Your task to perform on an android device: turn off location Image 0: 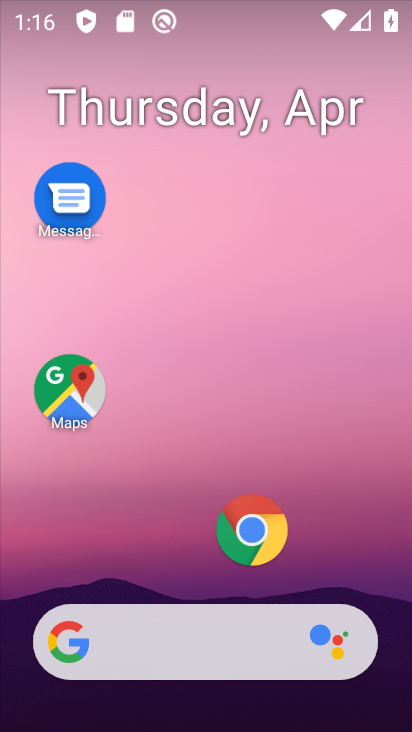
Step 0: drag from (219, 591) to (195, 9)
Your task to perform on an android device: turn off location Image 1: 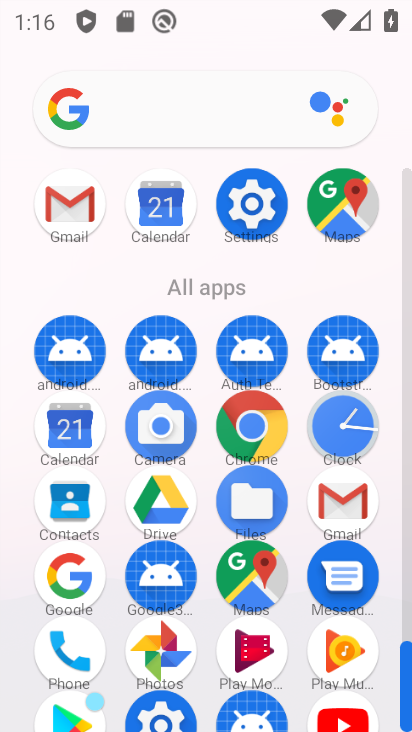
Step 1: click (246, 218)
Your task to perform on an android device: turn off location Image 2: 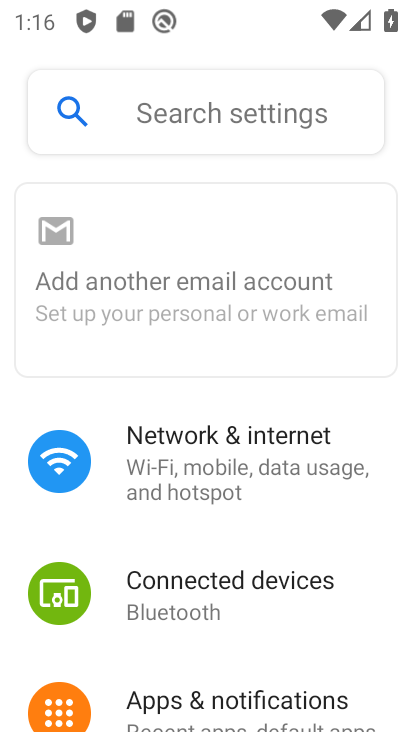
Step 2: drag from (266, 597) to (234, 193)
Your task to perform on an android device: turn off location Image 3: 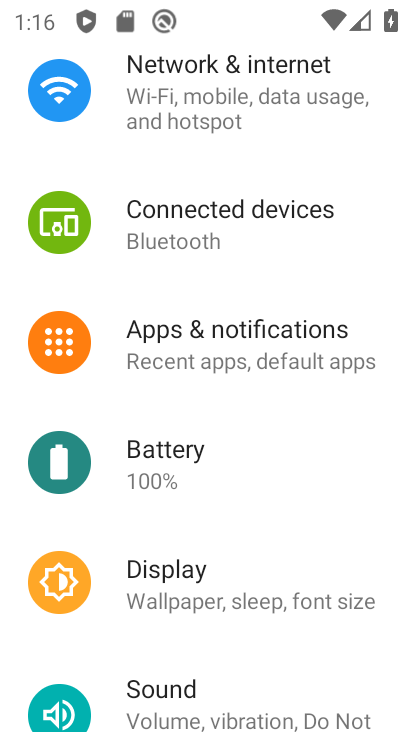
Step 3: drag from (197, 681) to (174, 243)
Your task to perform on an android device: turn off location Image 4: 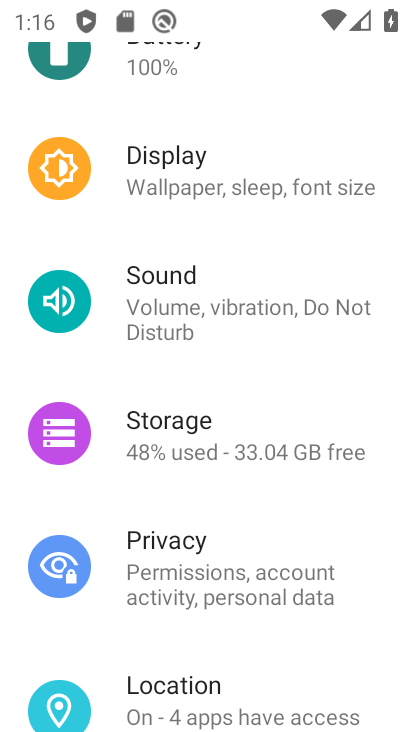
Step 4: click (228, 709)
Your task to perform on an android device: turn off location Image 5: 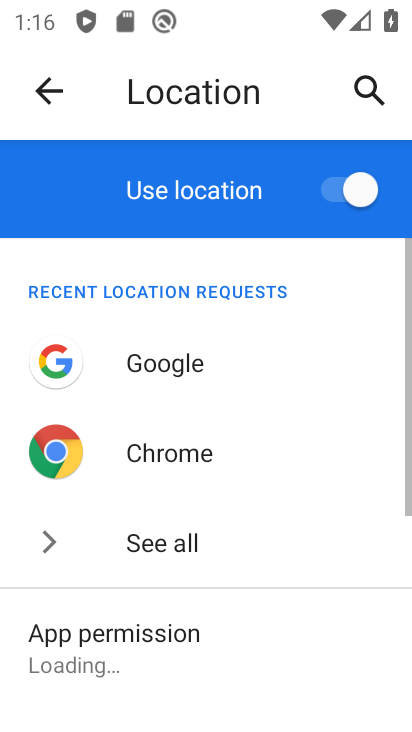
Step 5: click (328, 199)
Your task to perform on an android device: turn off location Image 6: 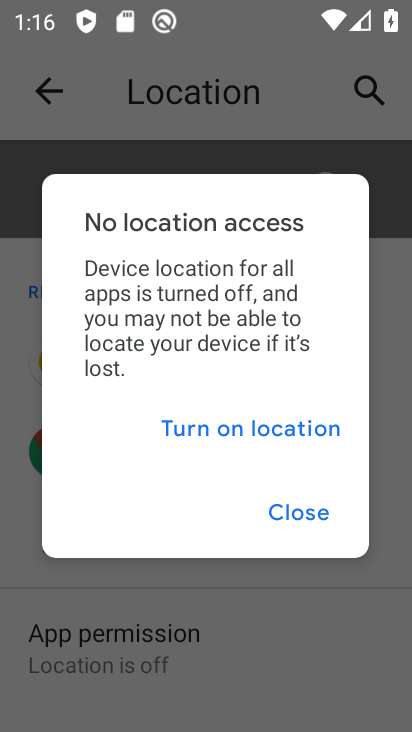
Step 6: click (313, 512)
Your task to perform on an android device: turn off location Image 7: 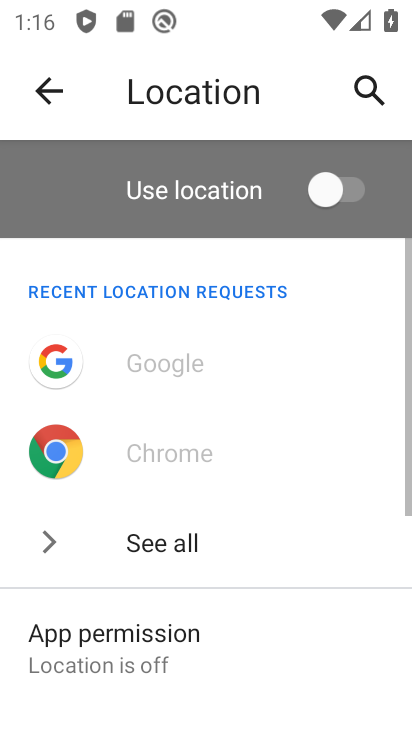
Step 7: task complete